Your task to perform on an android device: Go to display settings Image 0: 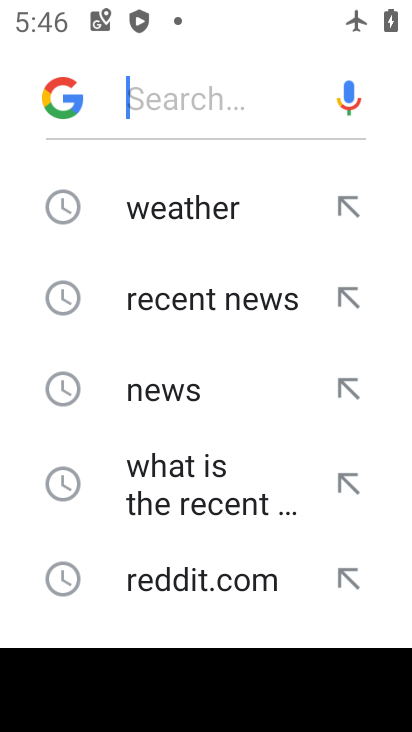
Step 0: press home button
Your task to perform on an android device: Go to display settings Image 1: 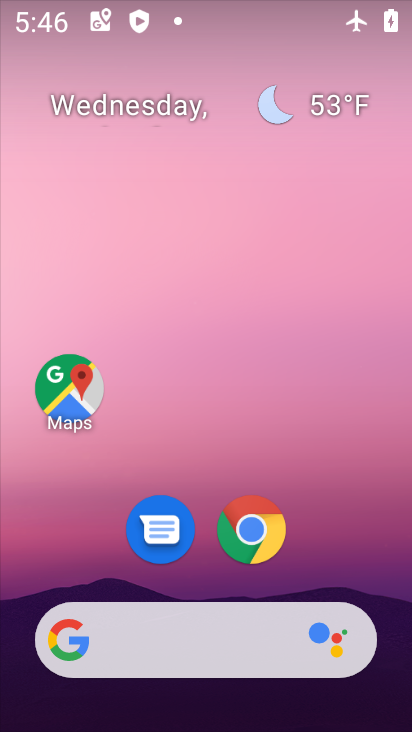
Step 1: drag from (275, 558) to (243, 226)
Your task to perform on an android device: Go to display settings Image 2: 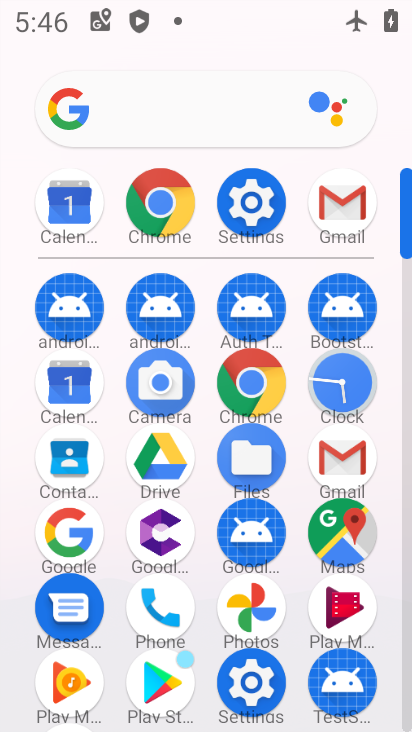
Step 2: click (253, 677)
Your task to perform on an android device: Go to display settings Image 3: 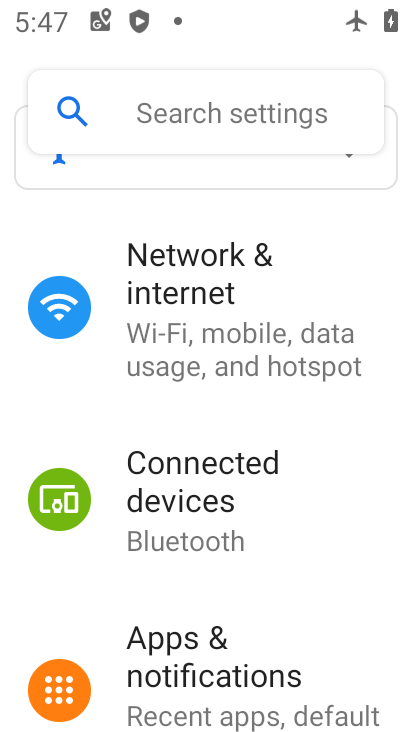
Step 3: drag from (255, 660) to (272, 335)
Your task to perform on an android device: Go to display settings Image 4: 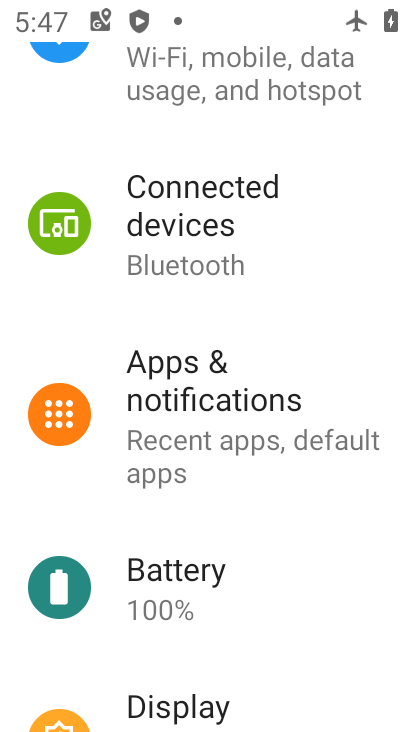
Step 4: click (196, 707)
Your task to perform on an android device: Go to display settings Image 5: 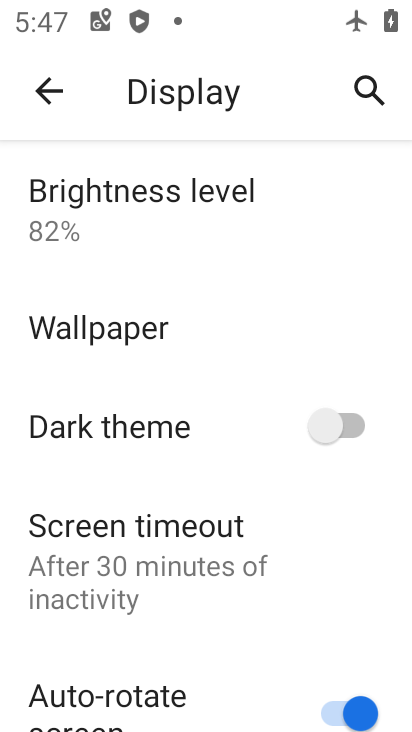
Step 5: task complete